Your task to perform on an android device: Open eBay Image 0: 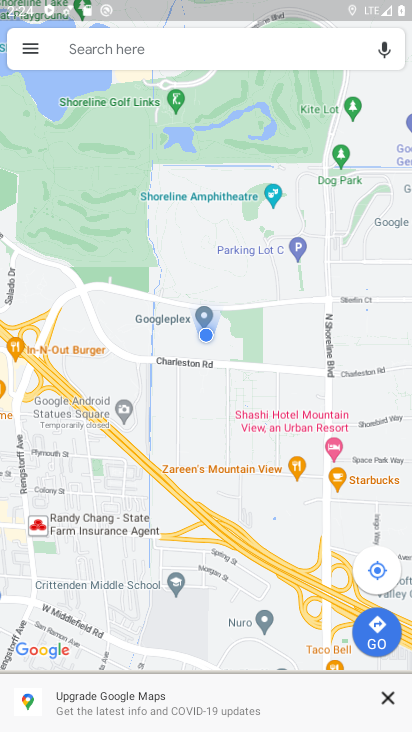
Step 0: press home button
Your task to perform on an android device: Open eBay Image 1: 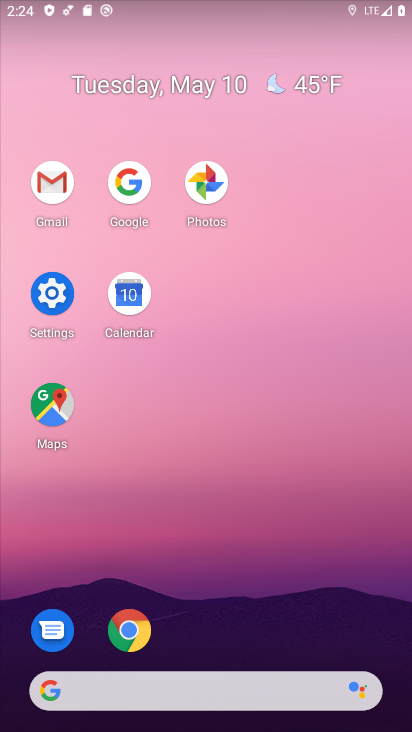
Step 1: click (135, 634)
Your task to perform on an android device: Open eBay Image 2: 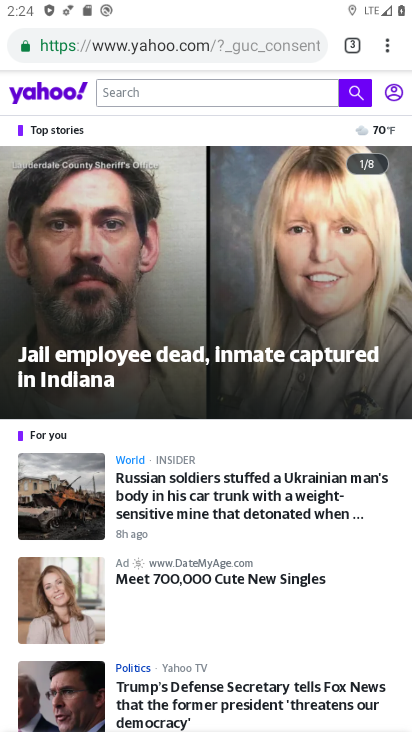
Step 2: click (355, 42)
Your task to perform on an android device: Open eBay Image 3: 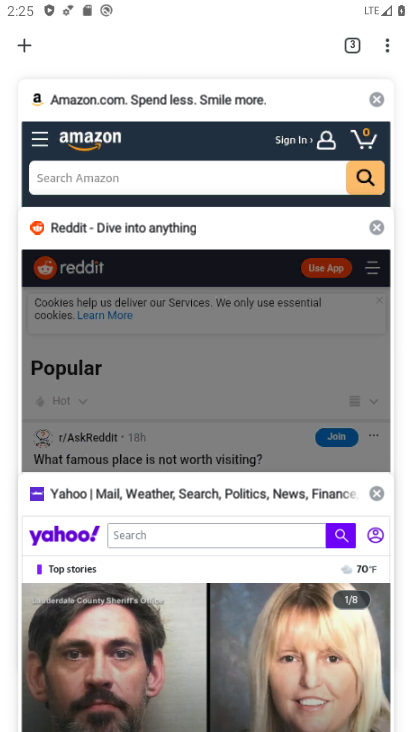
Step 3: click (29, 52)
Your task to perform on an android device: Open eBay Image 4: 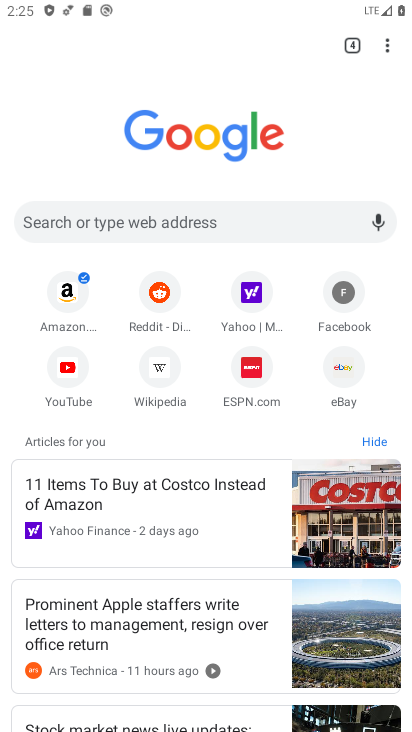
Step 4: click (344, 378)
Your task to perform on an android device: Open eBay Image 5: 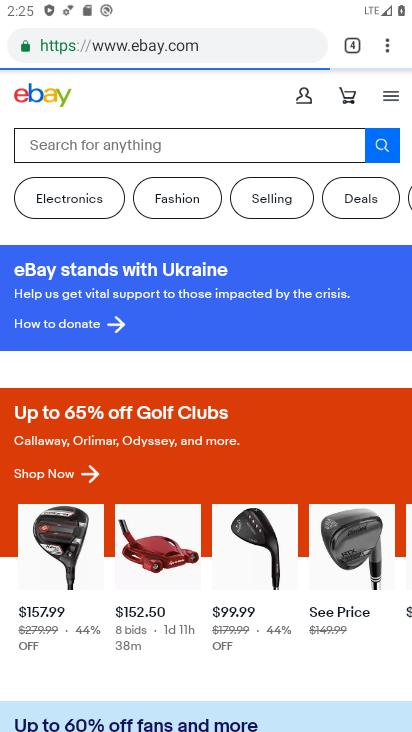
Step 5: task complete